Your task to perform on an android device: When is my next appointment? Image 0: 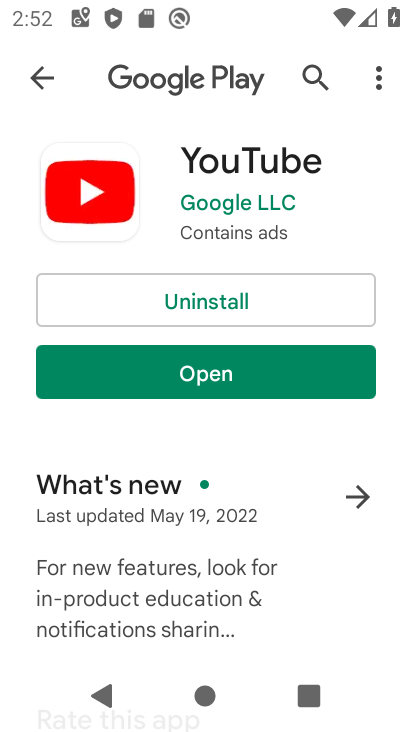
Step 0: press home button
Your task to perform on an android device: When is my next appointment? Image 1: 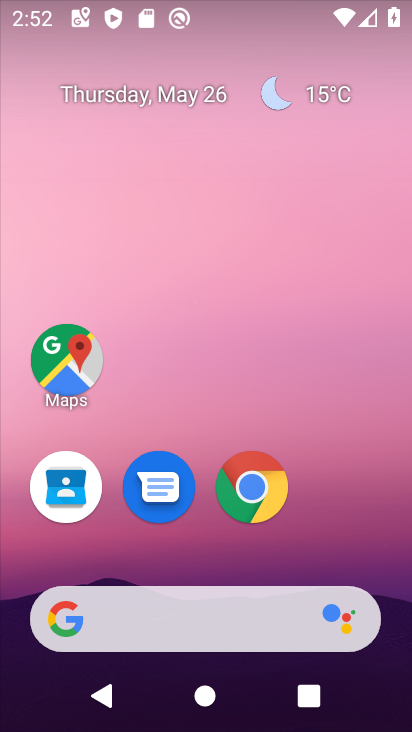
Step 1: drag from (212, 547) to (213, 158)
Your task to perform on an android device: When is my next appointment? Image 2: 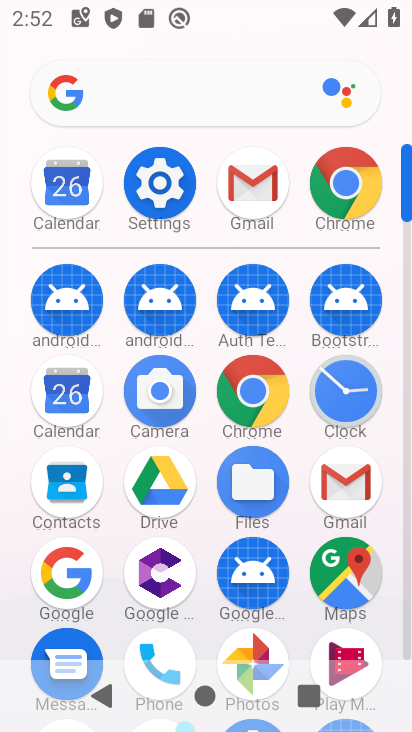
Step 2: click (81, 208)
Your task to perform on an android device: When is my next appointment? Image 3: 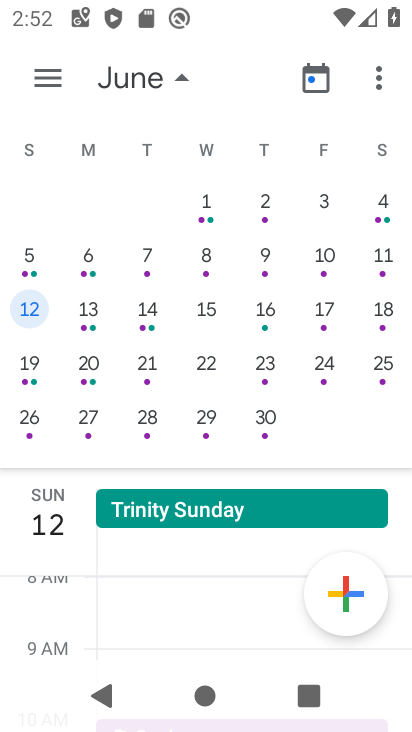
Step 3: drag from (246, 591) to (294, 274)
Your task to perform on an android device: When is my next appointment? Image 4: 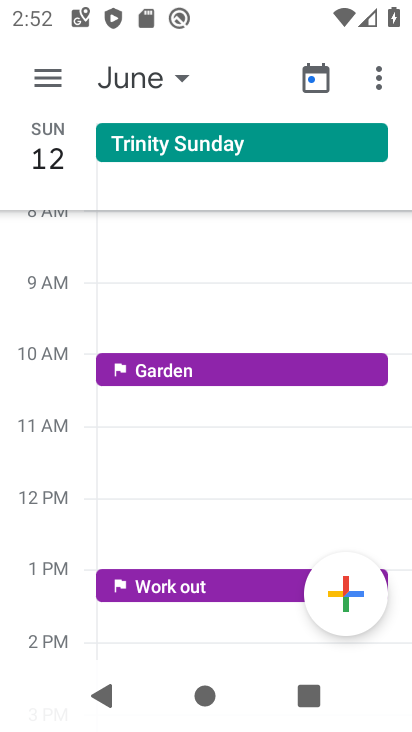
Step 4: click (34, 87)
Your task to perform on an android device: When is my next appointment? Image 5: 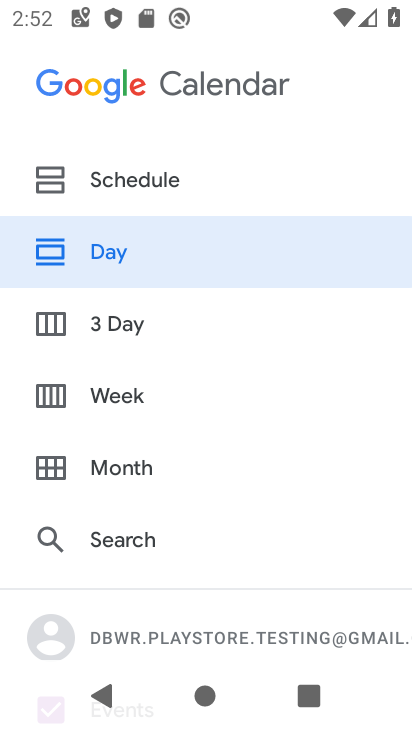
Step 5: click (135, 185)
Your task to perform on an android device: When is my next appointment? Image 6: 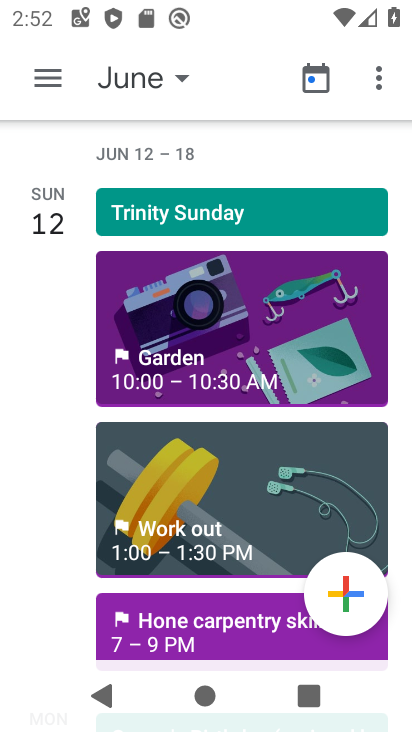
Step 6: drag from (203, 253) to (219, 553)
Your task to perform on an android device: When is my next appointment? Image 7: 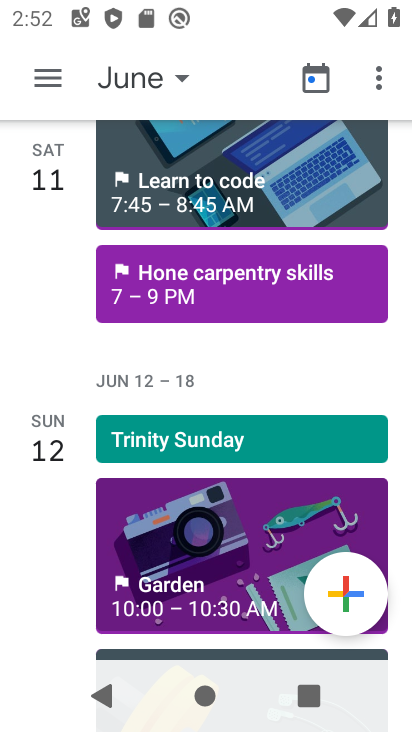
Step 7: drag from (194, 310) to (195, 522)
Your task to perform on an android device: When is my next appointment? Image 8: 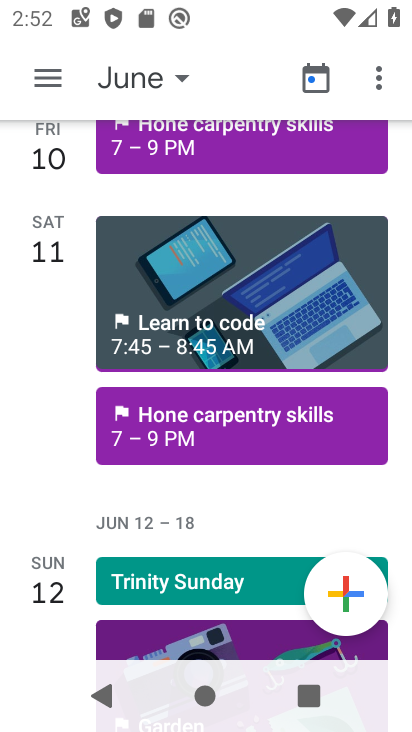
Step 8: click (158, 82)
Your task to perform on an android device: When is my next appointment? Image 9: 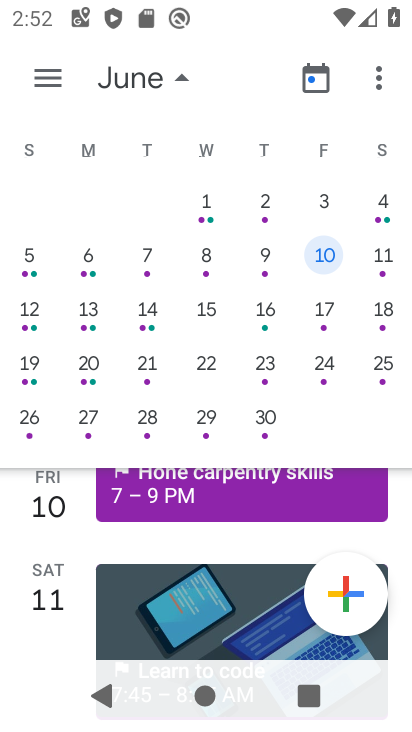
Step 9: drag from (54, 279) to (390, 267)
Your task to perform on an android device: When is my next appointment? Image 10: 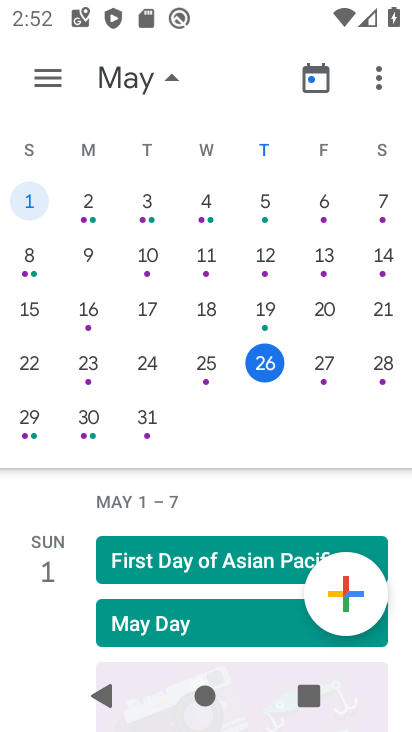
Step 10: click (272, 365)
Your task to perform on an android device: When is my next appointment? Image 11: 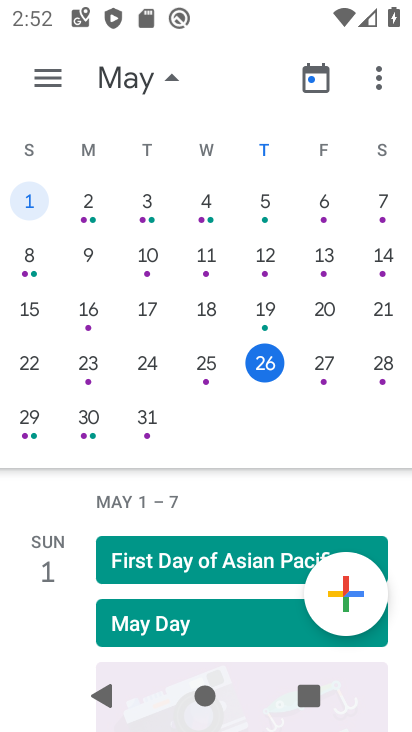
Step 11: drag from (199, 509) to (221, 83)
Your task to perform on an android device: When is my next appointment? Image 12: 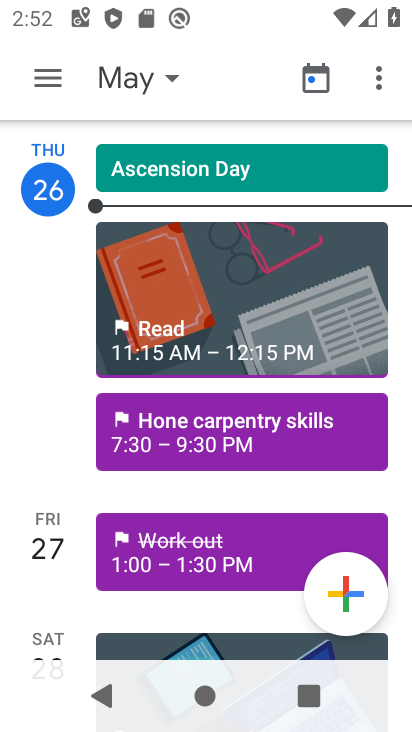
Step 12: drag from (201, 428) to (225, 169)
Your task to perform on an android device: When is my next appointment? Image 13: 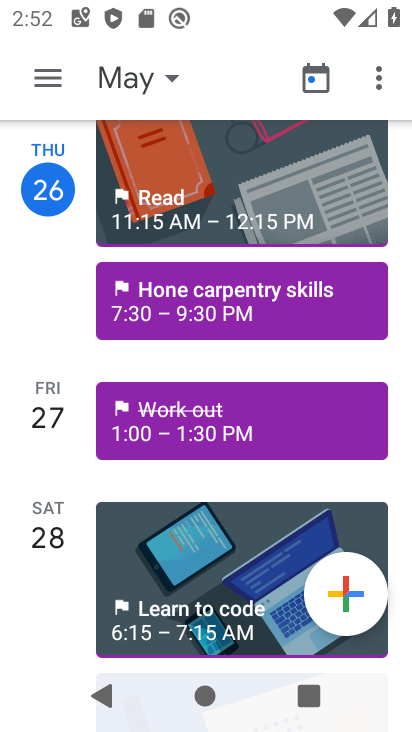
Step 13: drag from (228, 430) to (250, 184)
Your task to perform on an android device: When is my next appointment? Image 14: 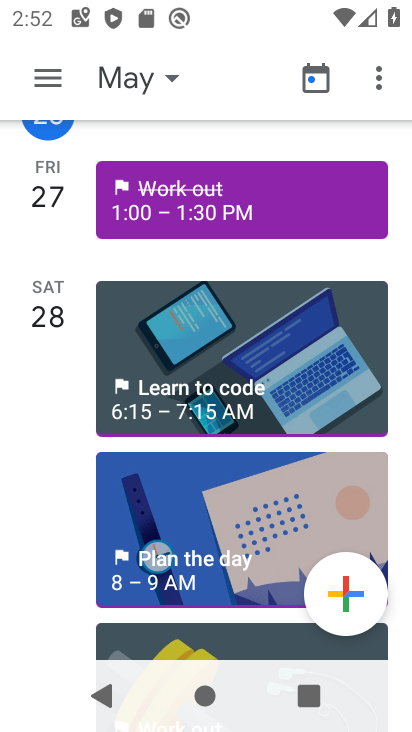
Step 14: drag from (250, 448) to (258, 180)
Your task to perform on an android device: When is my next appointment? Image 15: 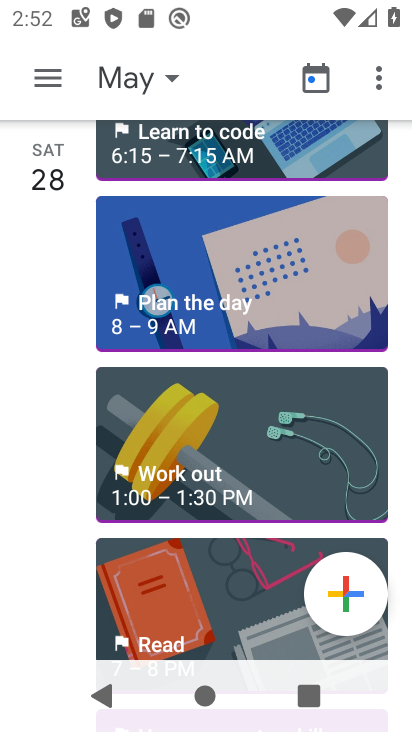
Step 15: drag from (243, 448) to (234, 257)
Your task to perform on an android device: When is my next appointment? Image 16: 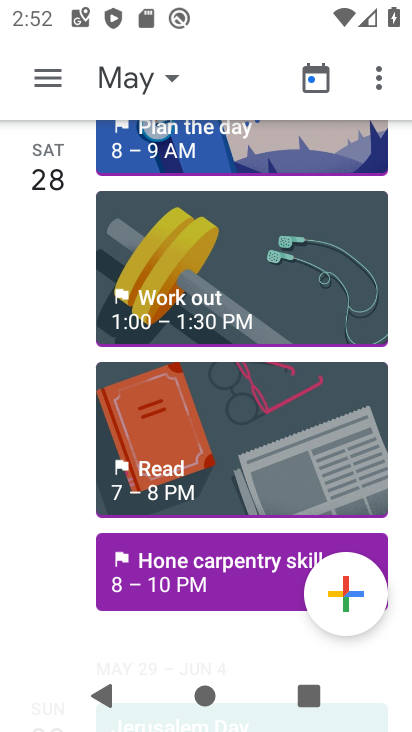
Step 16: drag from (241, 458) to (248, 242)
Your task to perform on an android device: When is my next appointment? Image 17: 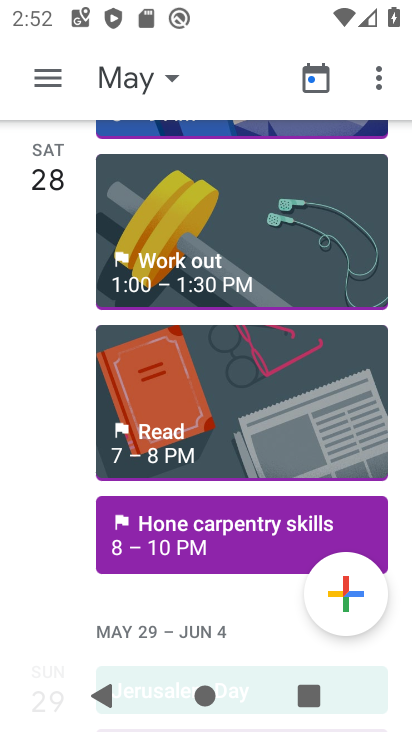
Step 17: drag from (228, 502) to (257, 285)
Your task to perform on an android device: When is my next appointment? Image 18: 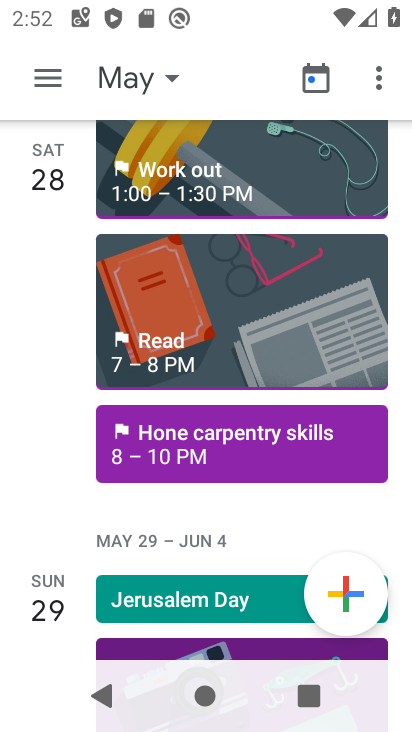
Step 18: drag from (238, 467) to (252, 235)
Your task to perform on an android device: When is my next appointment? Image 19: 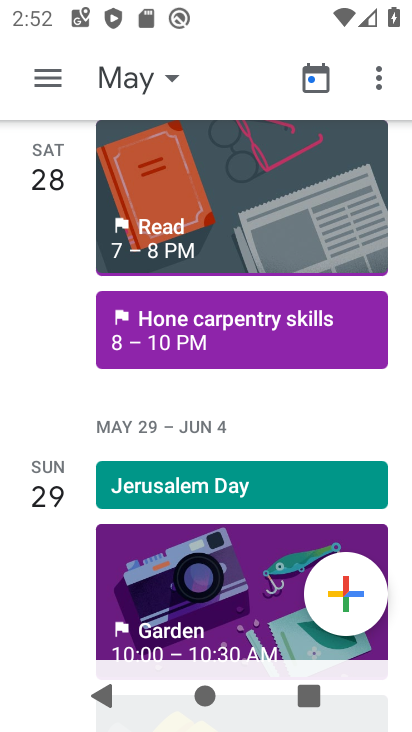
Step 19: drag from (237, 448) to (266, 213)
Your task to perform on an android device: When is my next appointment? Image 20: 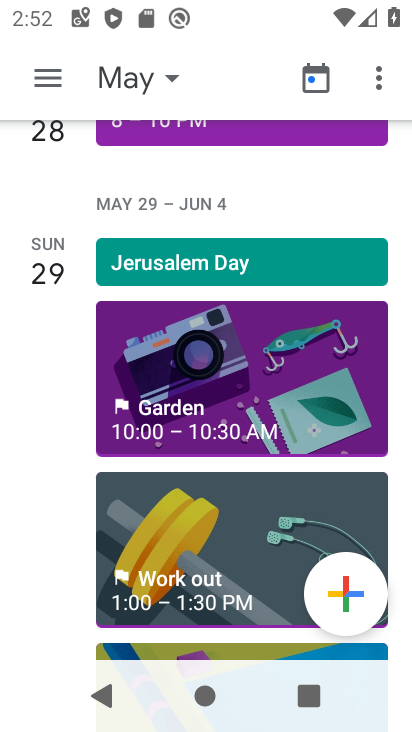
Step 20: drag from (244, 459) to (276, 219)
Your task to perform on an android device: When is my next appointment? Image 21: 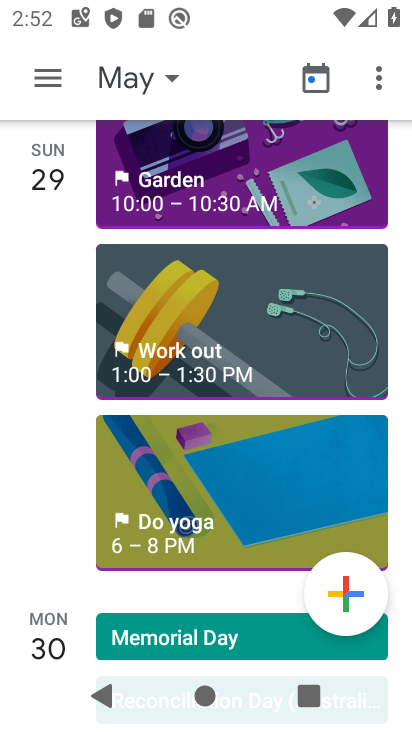
Step 21: drag from (263, 439) to (289, 249)
Your task to perform on an android device: When is my next appointment? Image 22: 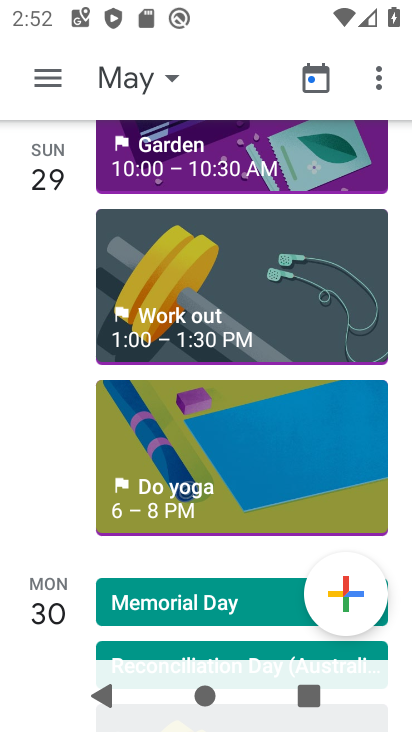
Step 22: drag from (286, 316) to (312, 228)
Your task to perform on an android device: When is my next appointment? Image 23: 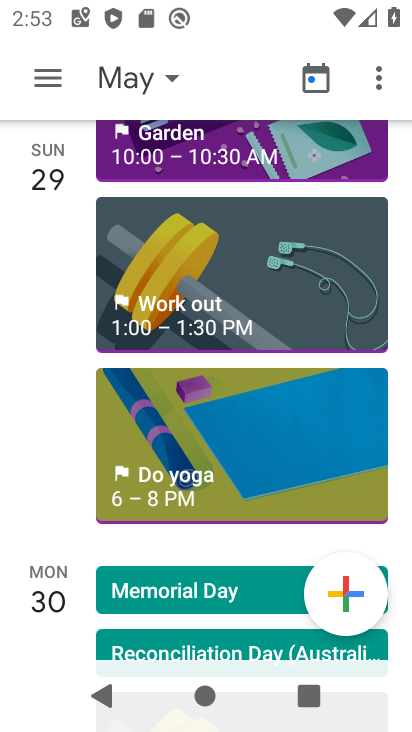
Step 23: click (318, 224)
Your task to perform on an android device: When is my next appointment? Image 24: 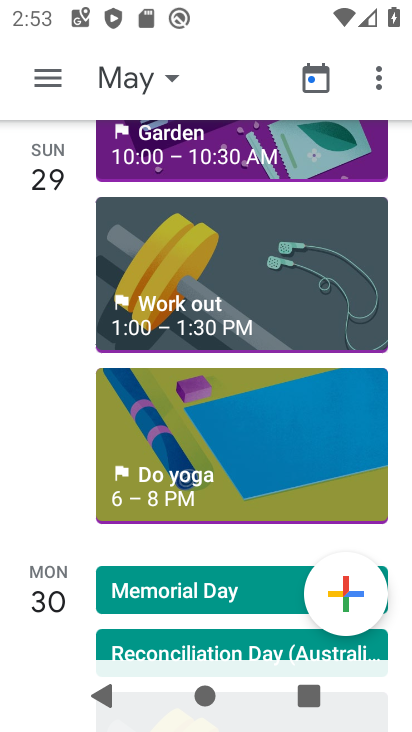
Step 24: task complete